Your task to perform on an android device: Open Chrome and go to settings Image 0: 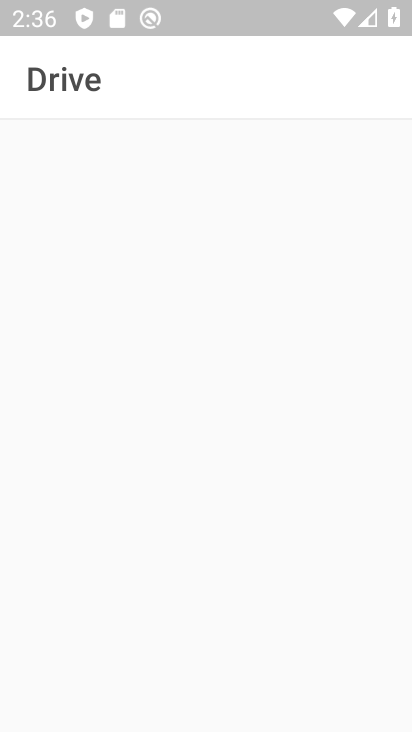
Step 0: press home button
Your task to perform on an android device: Open Chrome and go to settings Image 1: 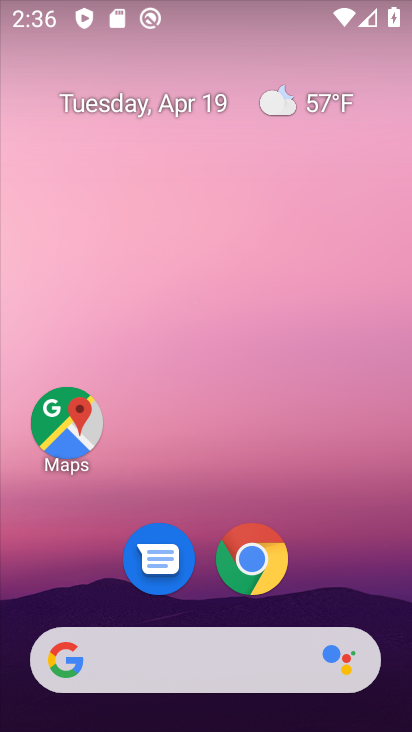
Step 1: click (247, 562)
Your task to perform on an android device: Open Chrome and go to settings Image 2: 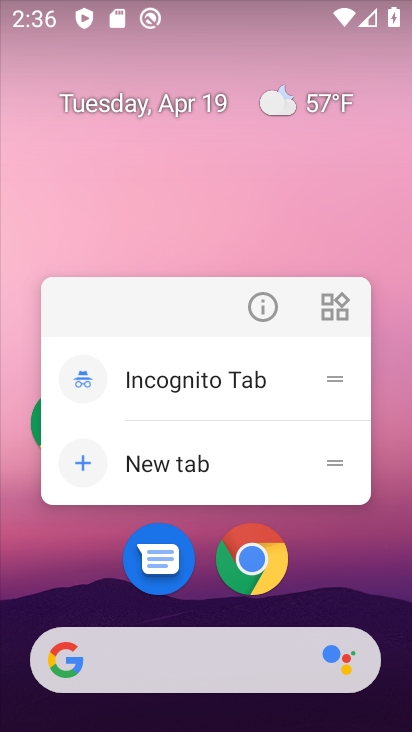
Step 2: click (254, 545)
Your task to perform on an android device: Open Chrome and go to settings Image 3: 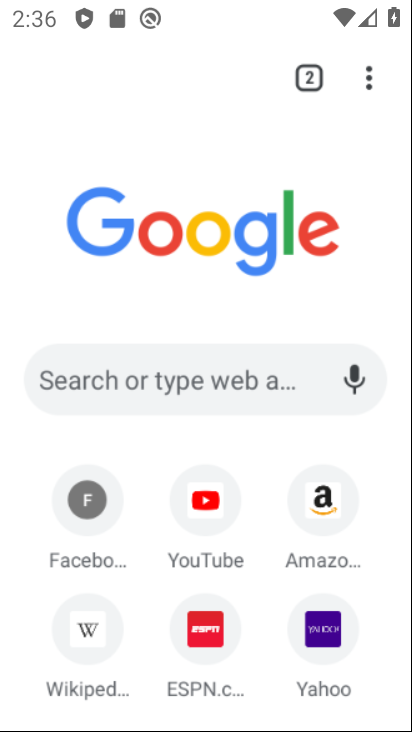
Step 3: click (262, 302)
Your task to perform on an android device: Open Chrome and go to settings Image 4: 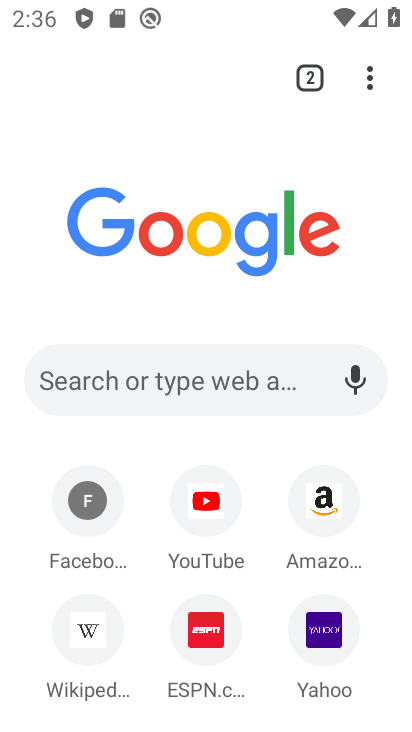
Step 4: click (376, 73)
Your task to perform on an android device: Open Chrome and go to settings Image 5: 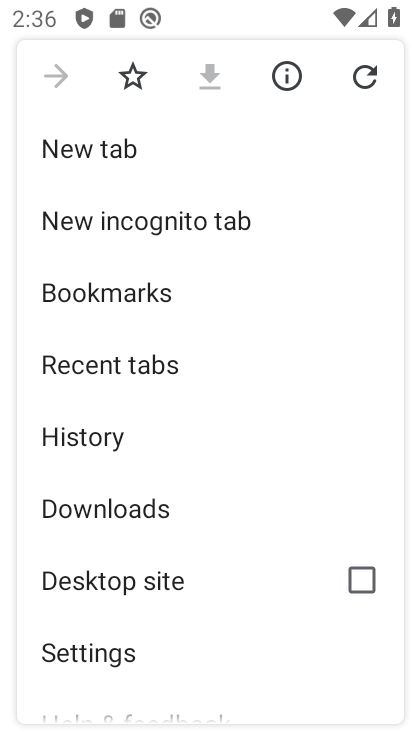
Step 5: click (96, 650)
Your task to perform on an android device: Open Chrome and go to settings Image 6: 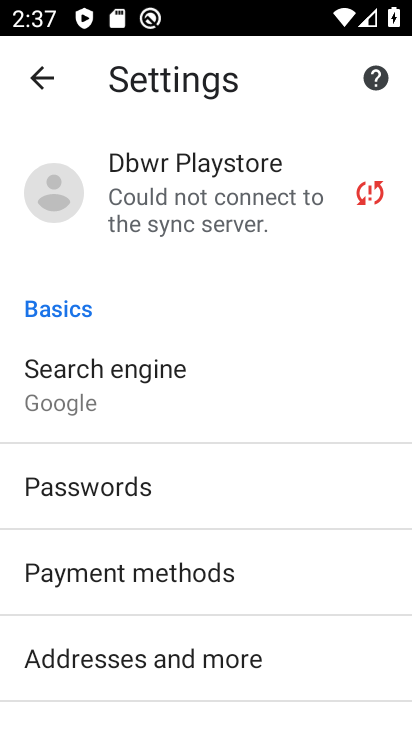
Step 6: task complete